Your task to perform on an android device: turn on data saver in the chrome app Image 0: 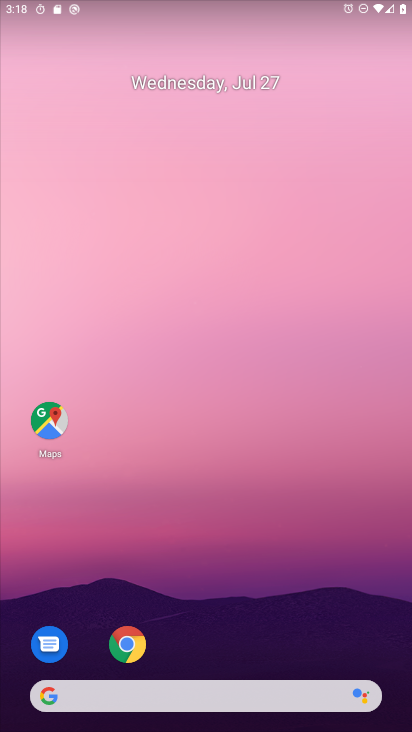
Step 0: drag from (212, 618) to (251, 135)
Your task to perform on an android device: turn on data saver in the chrome app Image 1: 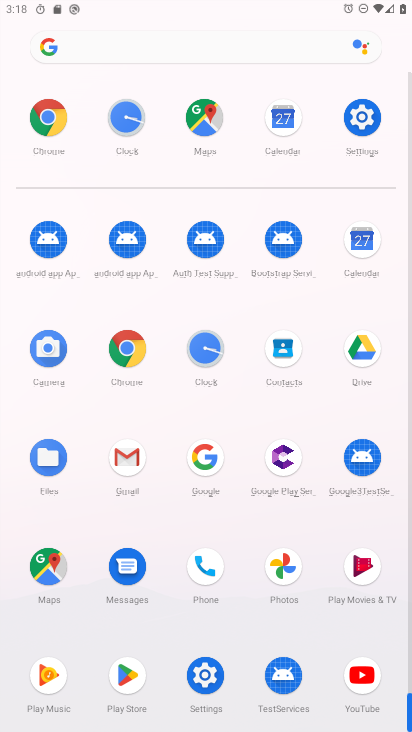
Step 1: click (125, 340)
Your task to perform on an android device: turn on data saver in the chrome app Image 2: 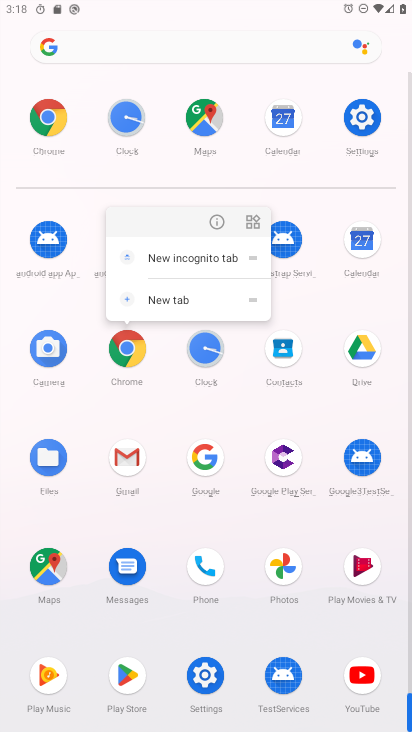
Step 2: click (214, 220)
Your task to perform on an android device: turn on data saver in the chrome app Image 3: 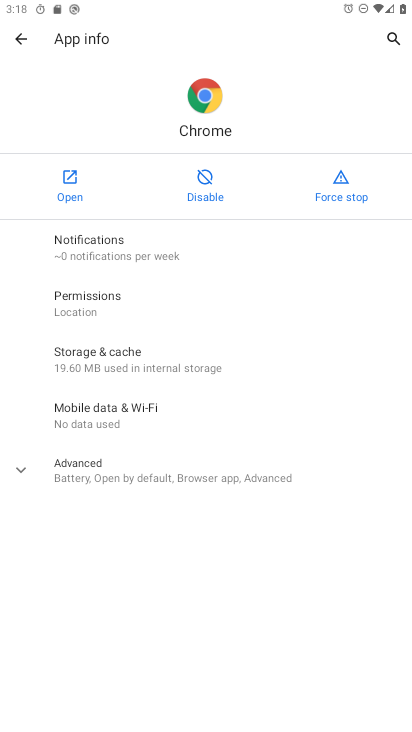
Step 3: click (67, 168)
Your task to perform on an android device: turn on data saver in the chrome app Image 4: 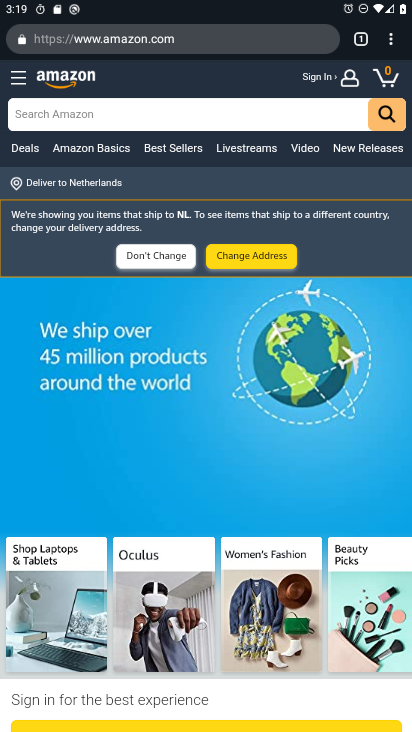
Step 4: drag from (390, 39) to (286, 520)
Your task to perform on an android device: turn on data saver in the chrome app Image 5: 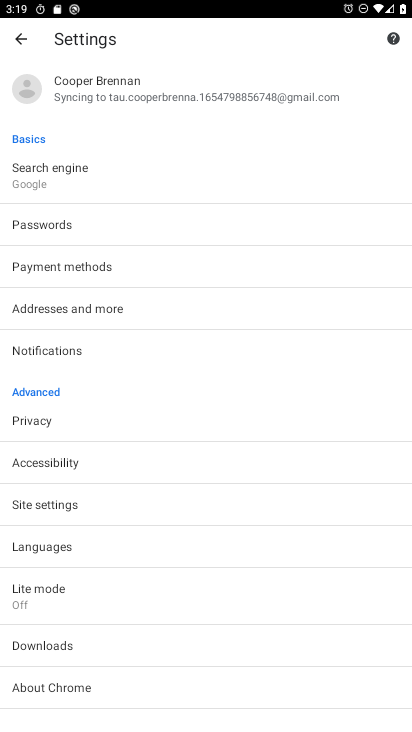
Step 5: drag from (87, 663) to (204, 272)
Your task to perform on an android device: turn on data saver in the chrome app Image 6: 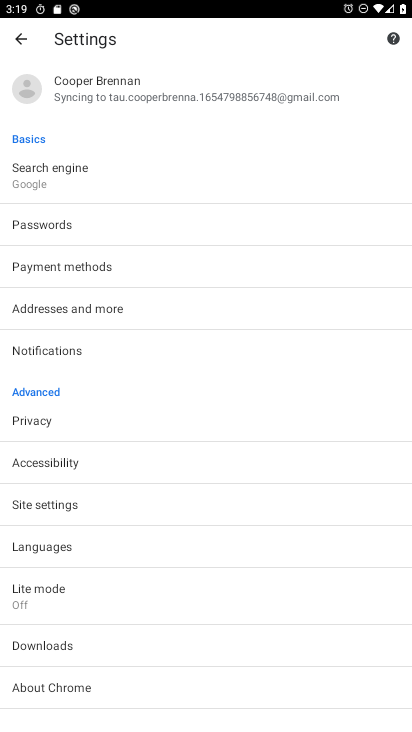
Step 6: click (84, 585)
Your task to perform on an android device: turn on data saver in the chrome app Image 7: 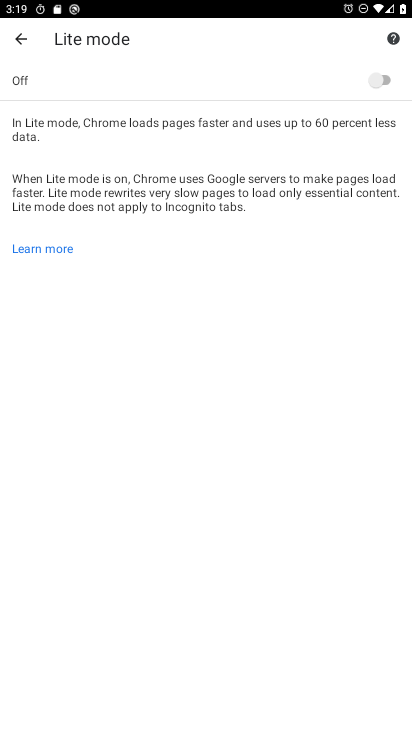
Step 7: drag from (142, 509) to (197, 271)
Your task to perform on an android device: turn on data saver in the chrome app Image 8: 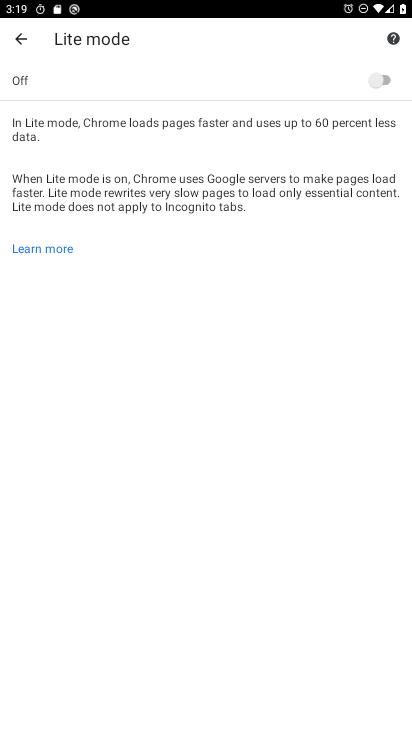
Step 8: click (331, 85)
Your task to perform on an android device: turn on data saver in the chrome app Image 9: 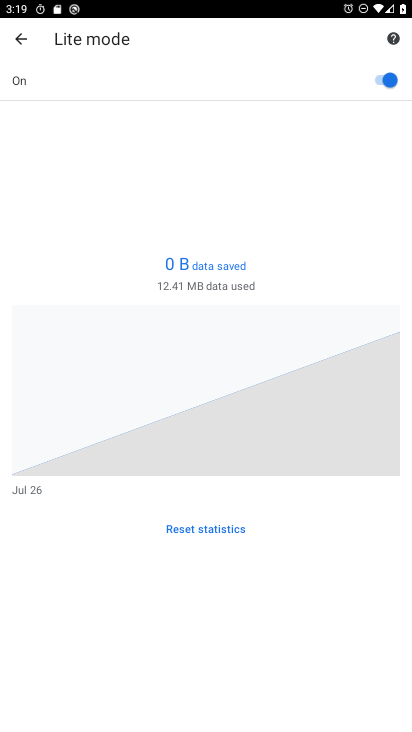
Step 9: task complete